Your task to perform on an android device: Open maps Image 0: 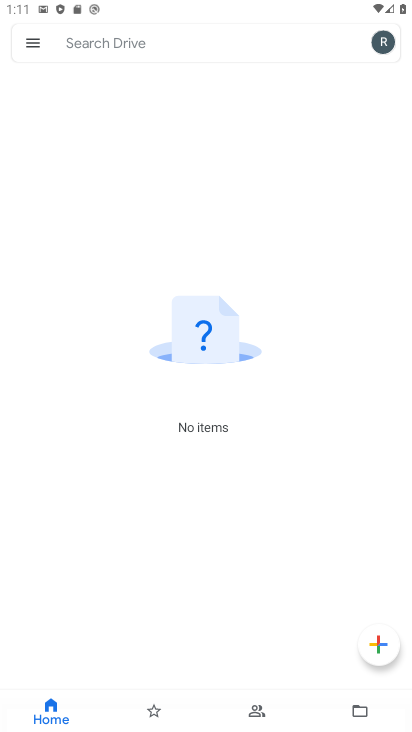
Step 0: press home button
Your task to perform on an android device: Open maps Image 1: 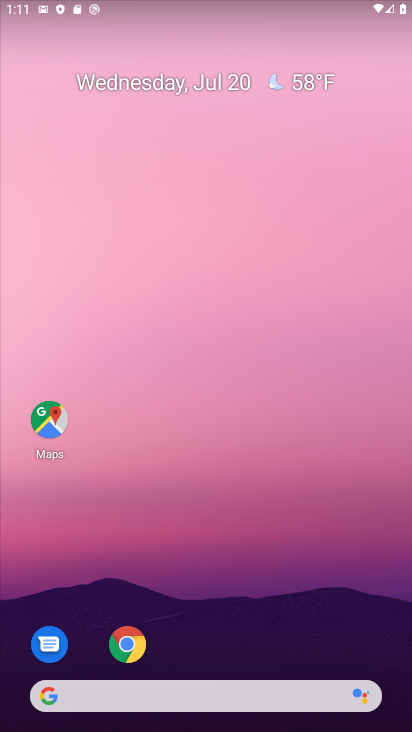
Step 1: click (51, 425)
Your task to perform on an android device: Open maps Image 2: 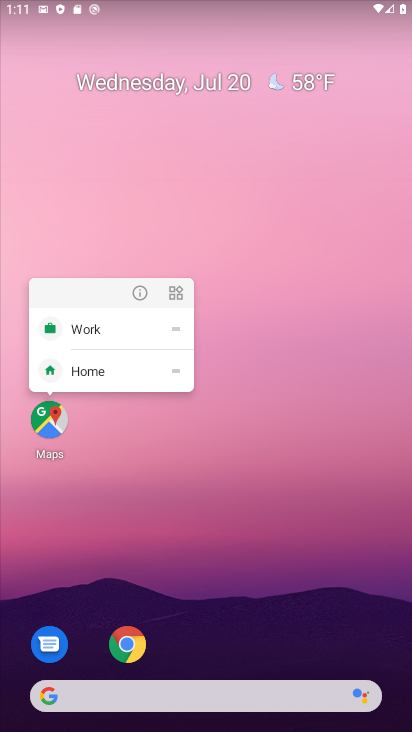
Step 2: click (51, 425)
Your task to perform on an android device: Open maps Image 3: 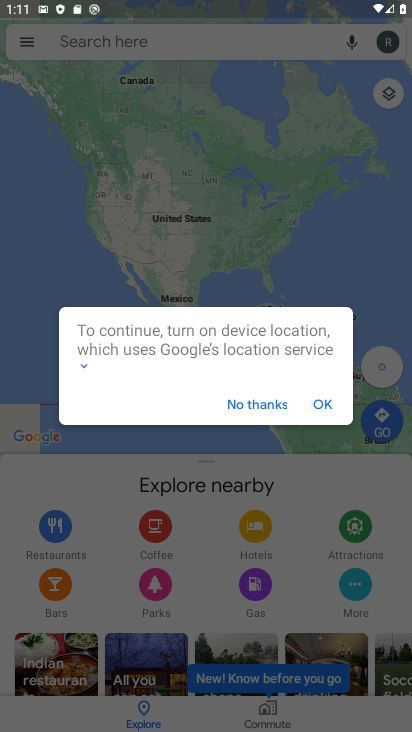
Step 3: click (245, 420)
Your task to perform on an android device: Open maps Image 4: 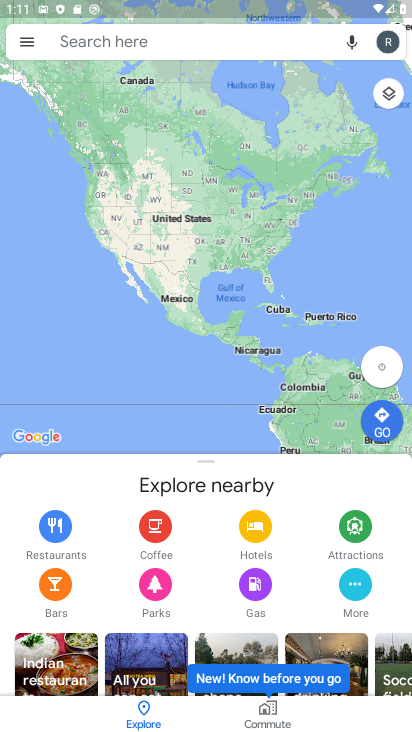
Step 4: task complete